Your task to perform on an android device: toggle javascript in the chrome app Image 0: 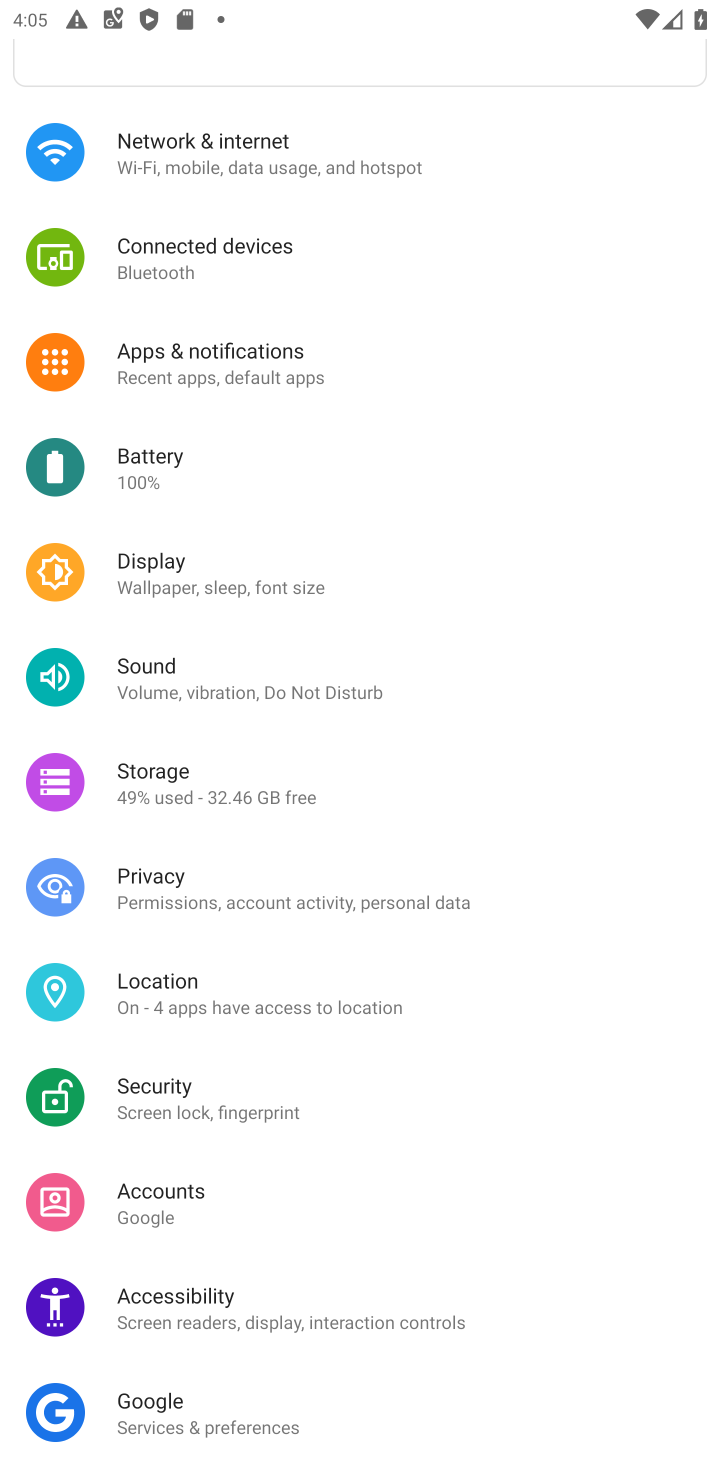
Step 0: press home button
Your task to perform on an android device: toggle javascript in the chrome app Image 1: 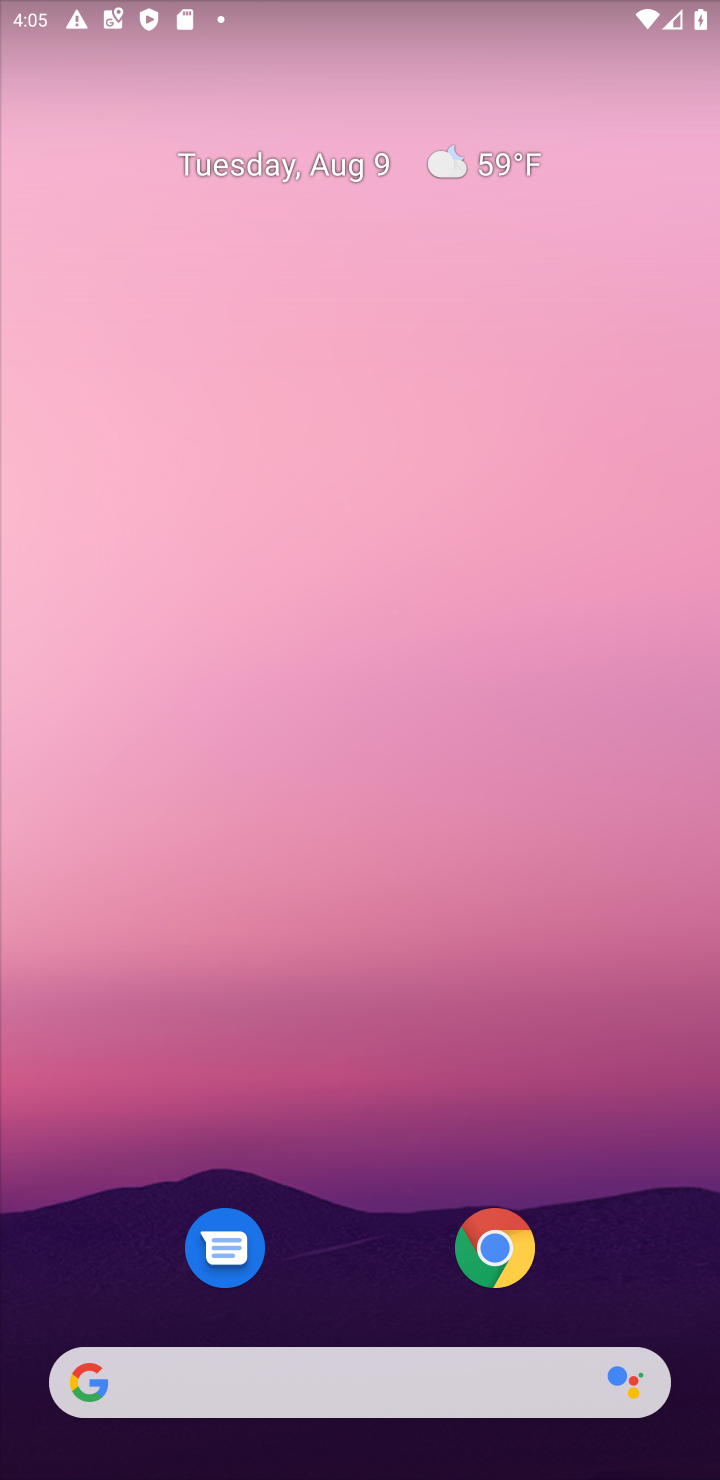
Step 1: drag from (358, 1211) to (315, 12)
Your task to perform on an android device: toggle javascript in the chrome app Image 2: 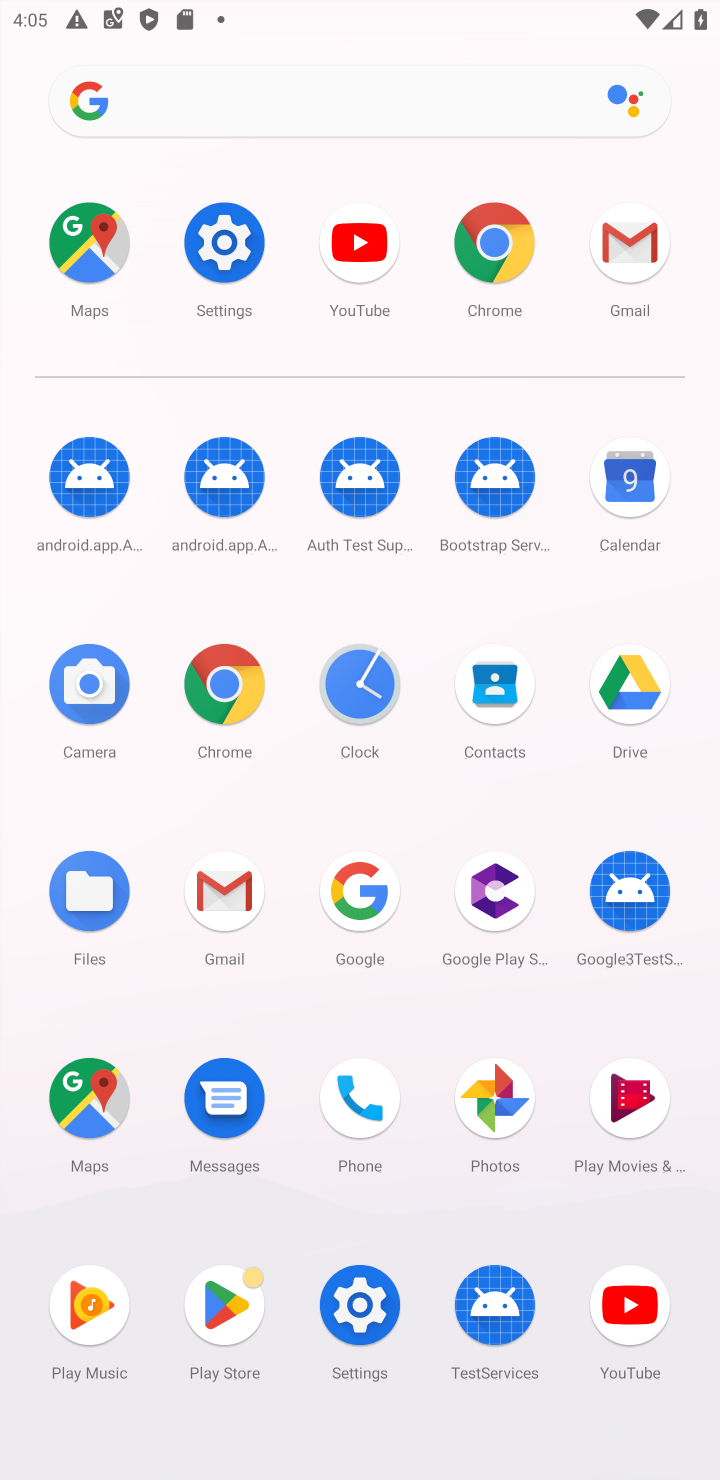
Step 2: click (236, 685)
Your task to perform on an android device: toggle javascript in the chrome app Image 3: 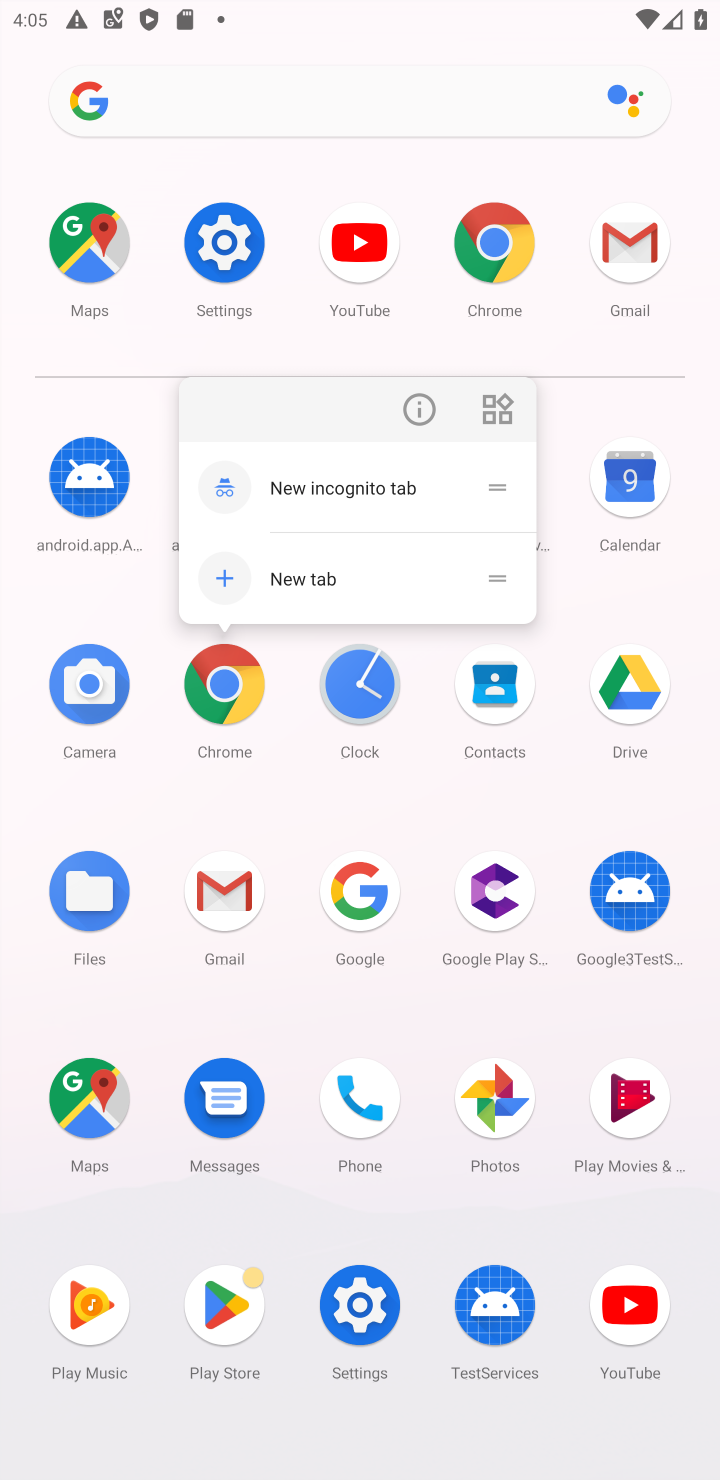
Step 3: click (230, 689)
Your task to perform on an android device: toggle javascript in the chrome app Image 4: 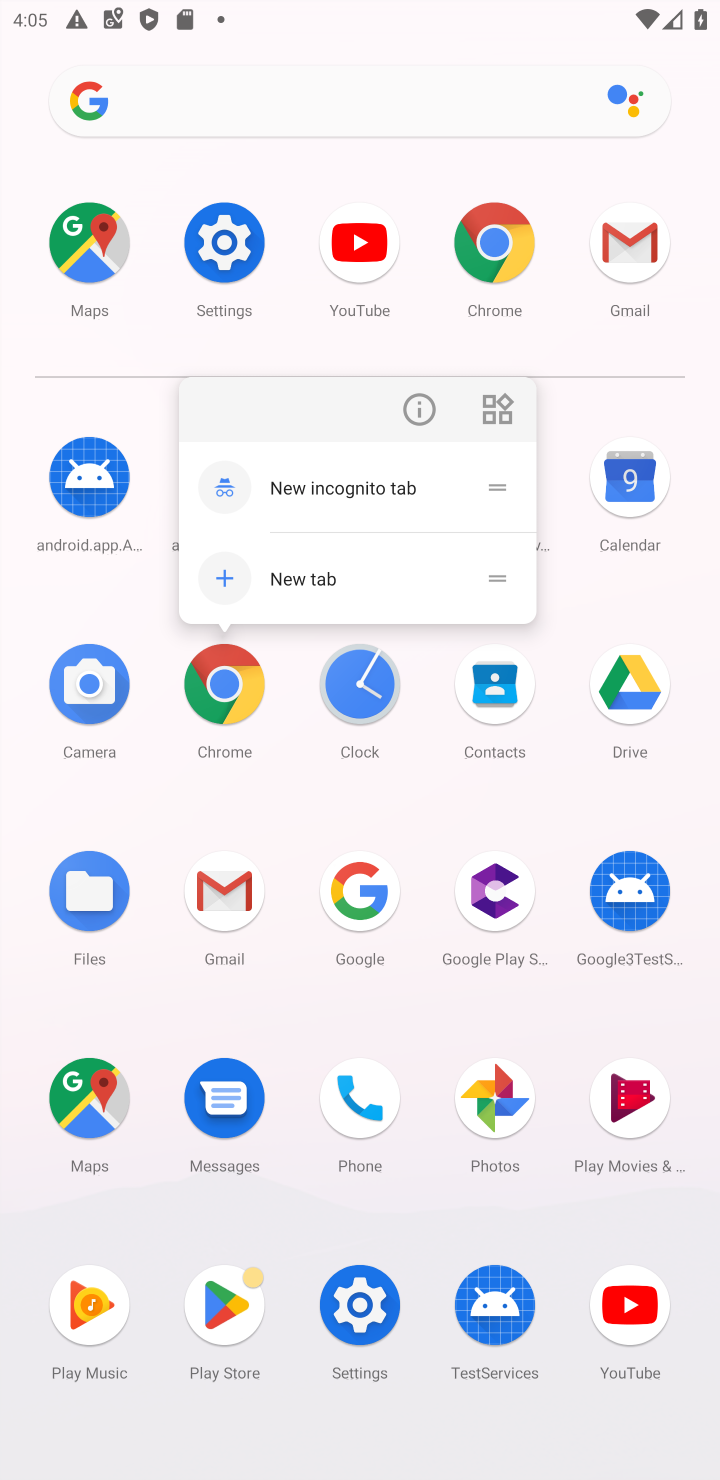
Step 4: click (265, 772)
Your task to perform on an android device: toggle javascript in the chrome app Image 5: 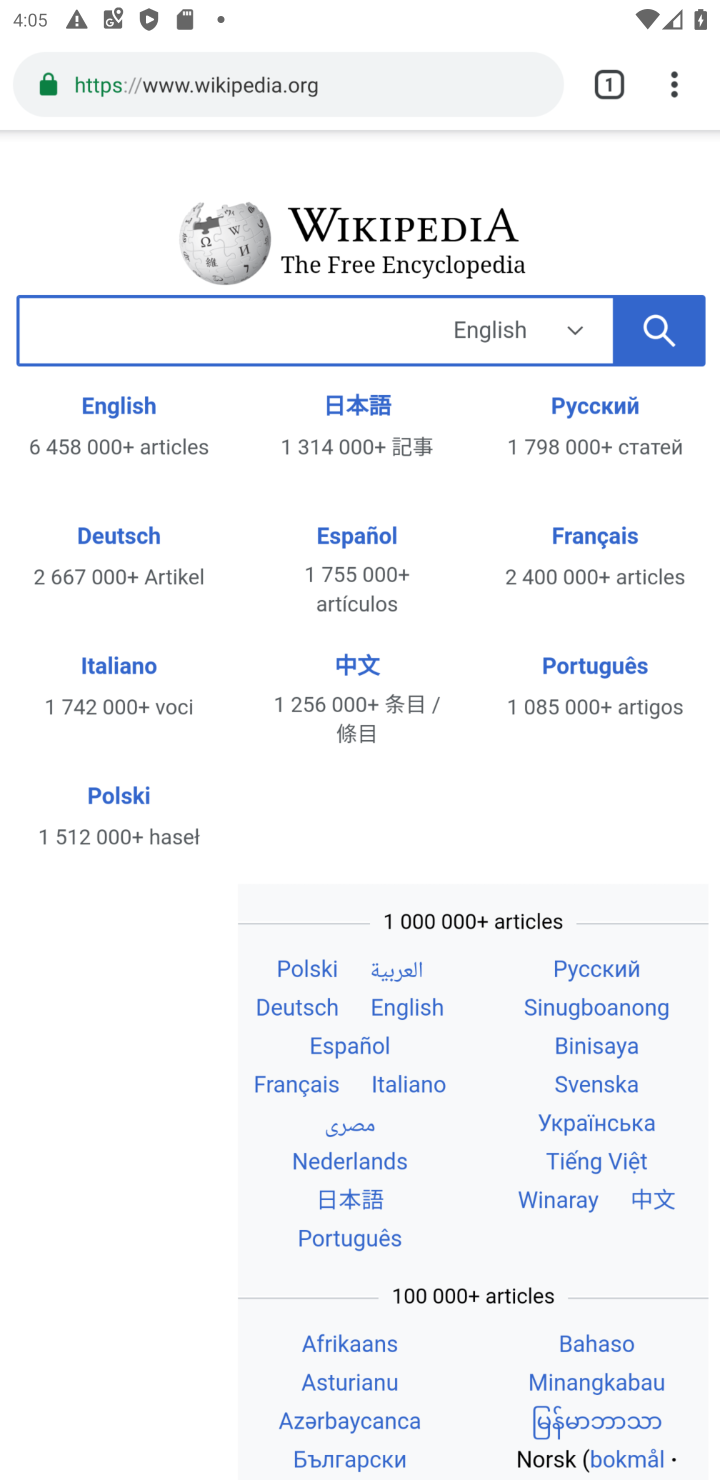
Step 5: click (219, 683)
Your task to perform on an android device: toggle javascript in the chrome app Image 6: 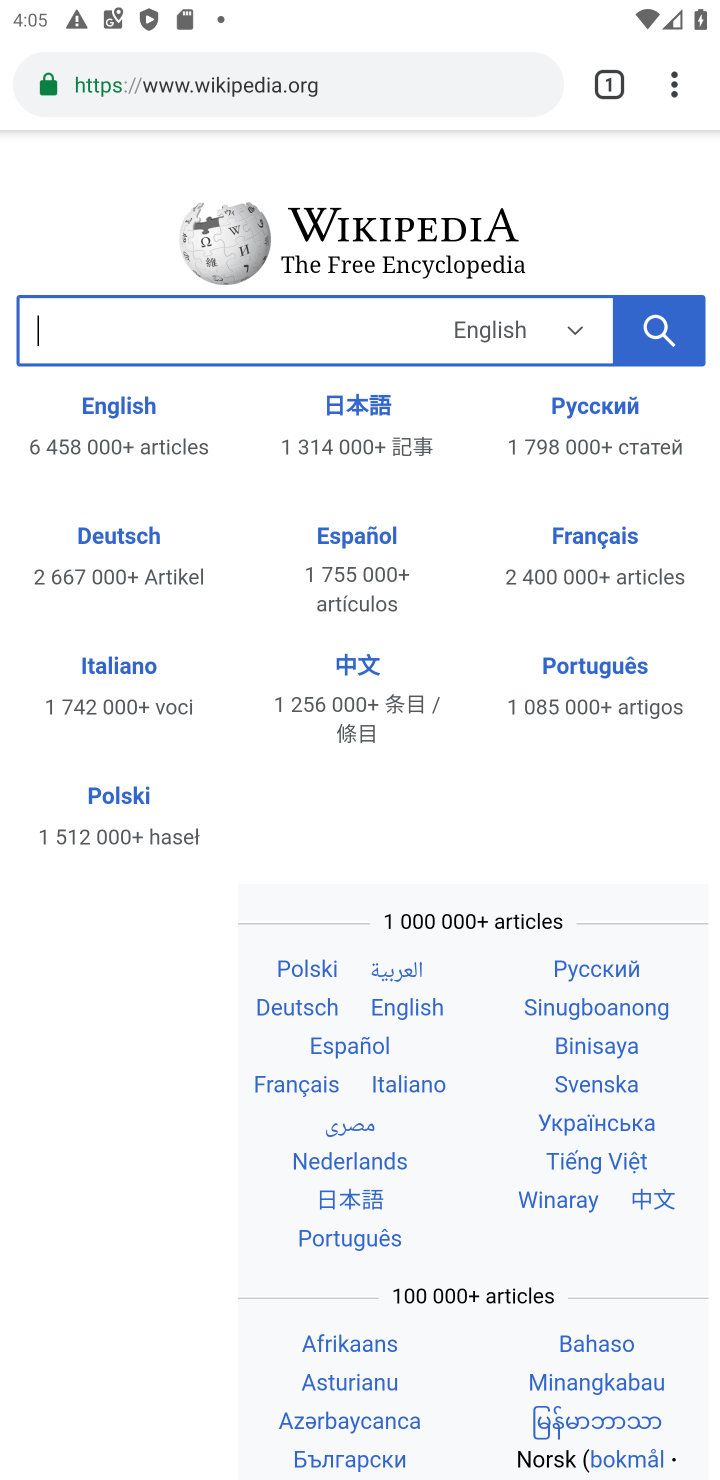
Step 6: drag from (683, 71) to (371, 1091)
Your task to perform on an android device: toggle javascript in the chrome app Image 7: 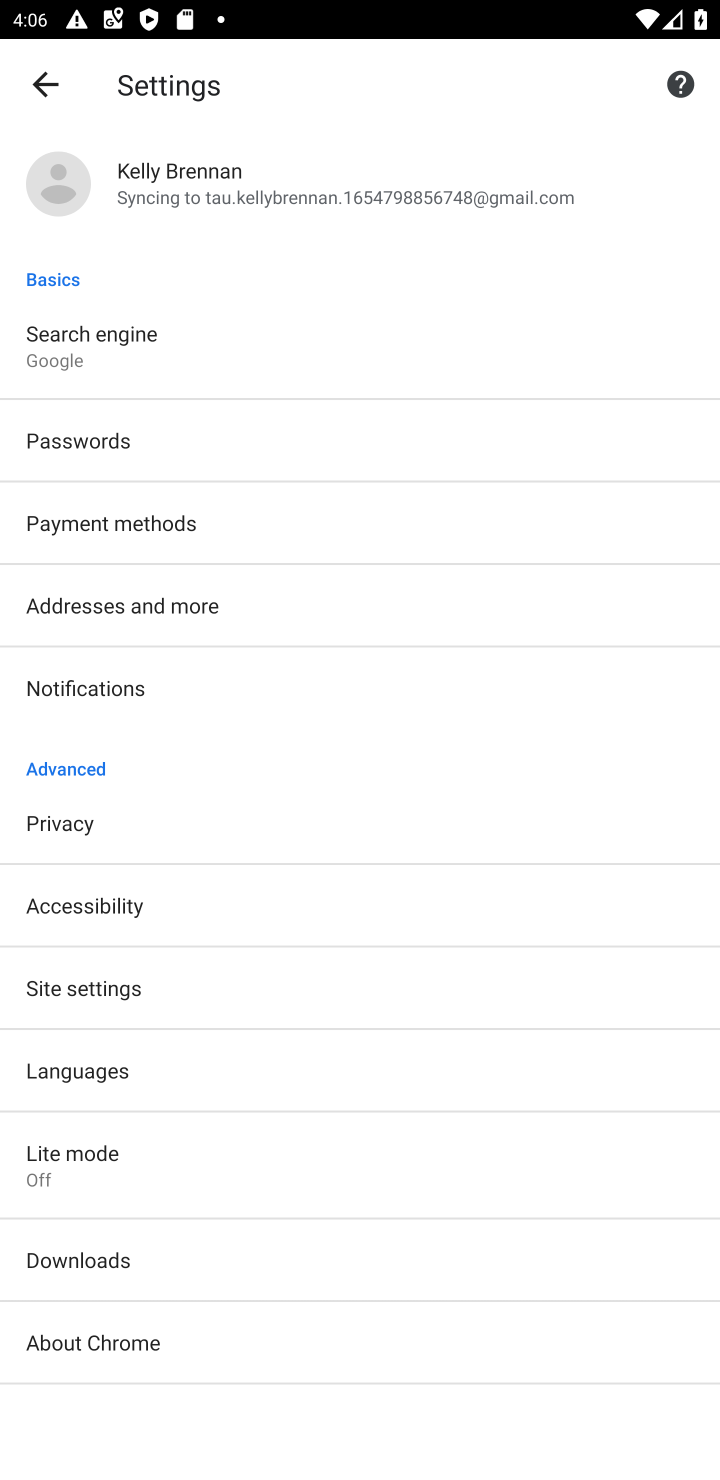
Step 7: click (79, 997)
Your task to perform on an android device: toggle javascript in the chrome app Image 8: 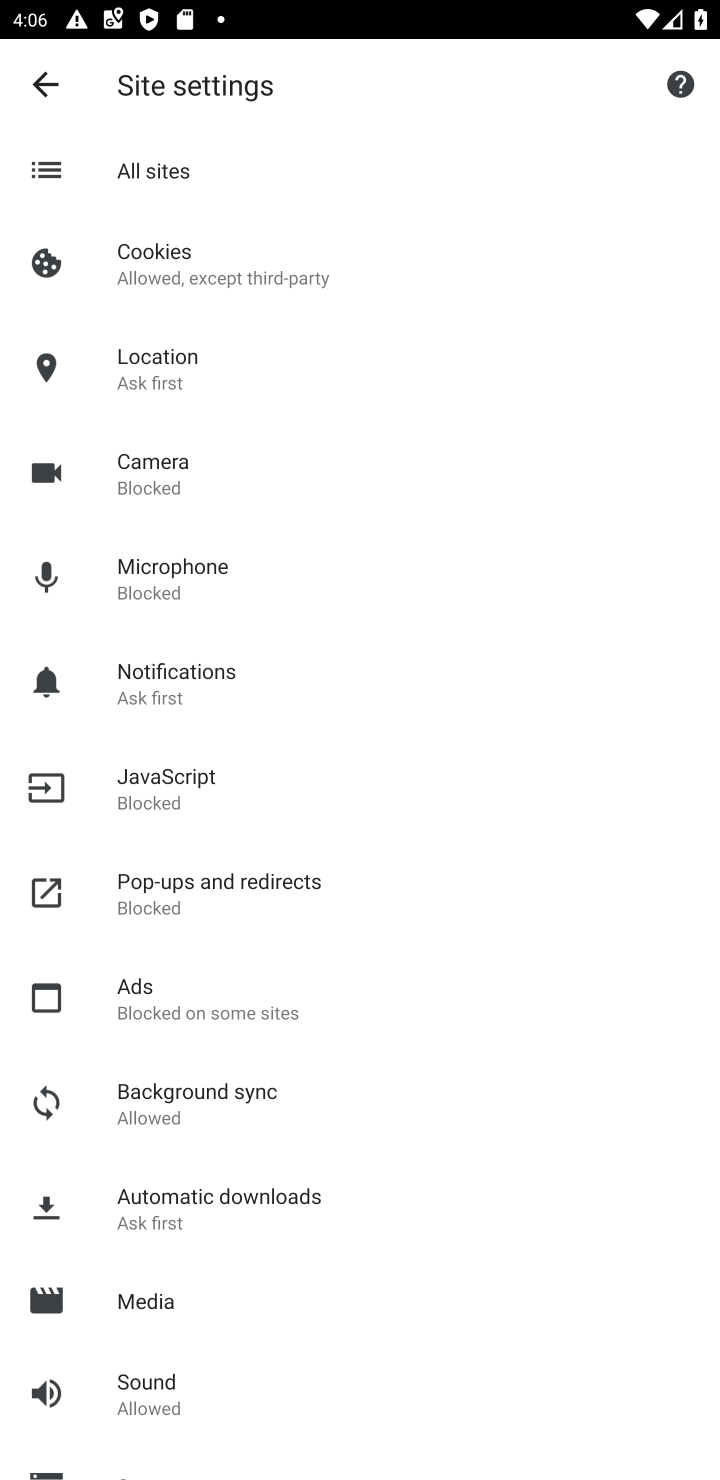
Step 8: click (216, 763)
Your task to perform on an android device: toggle javascript in the chrome app Image 9: 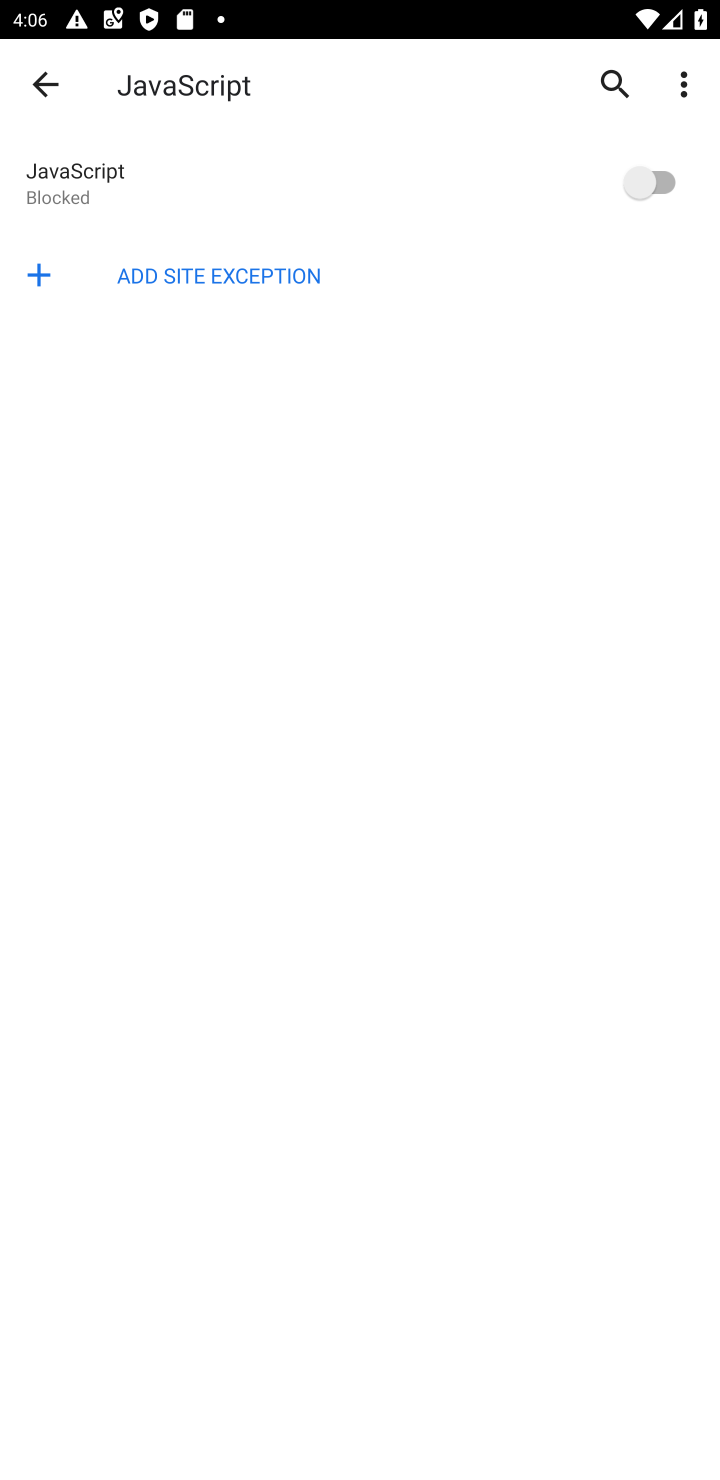
Step 9: click (635, 163)
Your task to perform on an android device: toggle javascript in the chrome app Image 10: 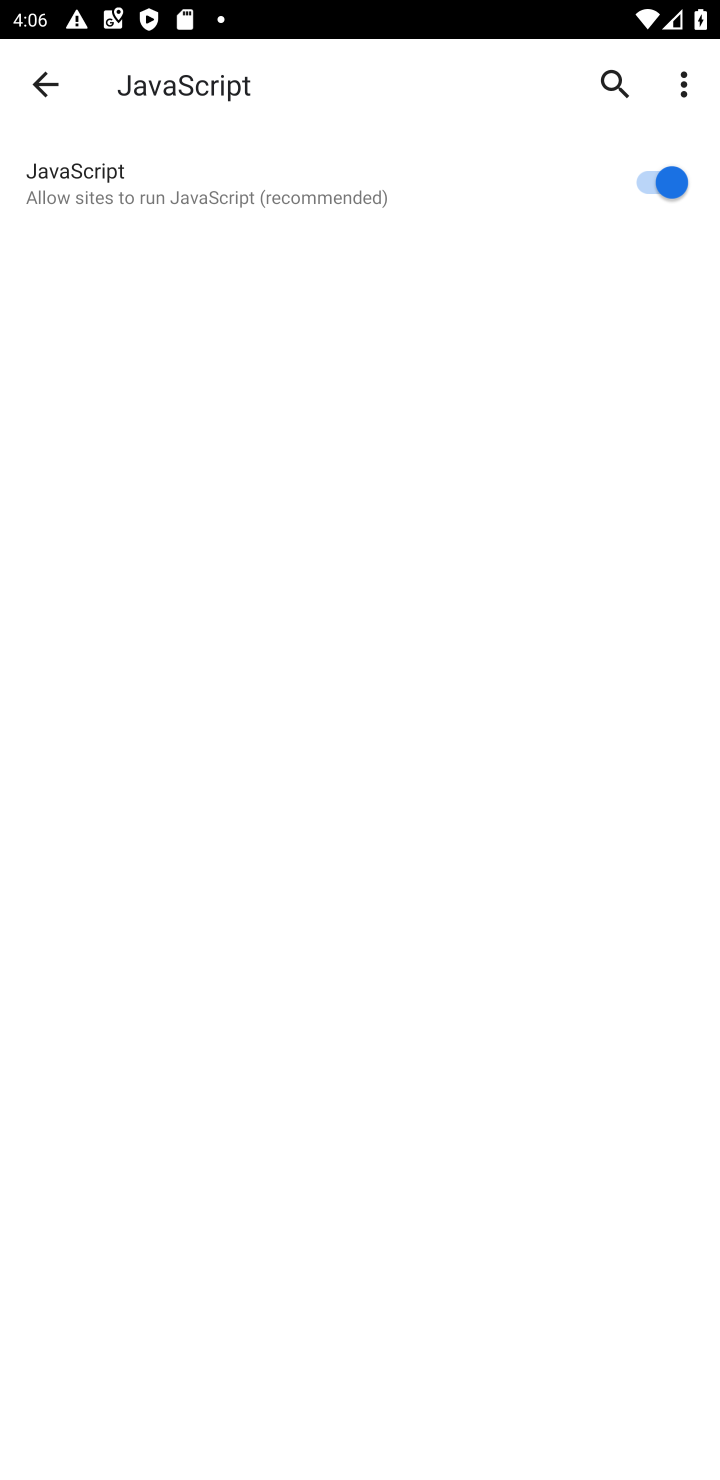
Step 10: task complete